Your task to perform on an android device: Open Chrome and go to settings Image 0: 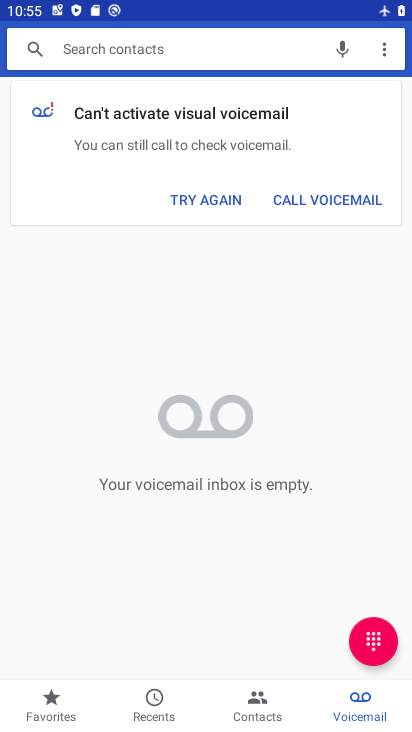
Step 0: press home button
Your task to perform on an android device: Open Chrome and go to settings Image 1: 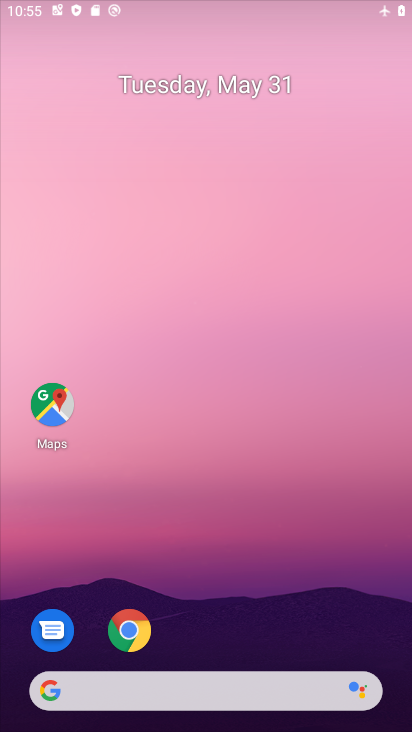
Step 1: drag from (201, 630) to (215, 160)
Your task to perform on an android device: Open Chrome and go to settings Image 2: 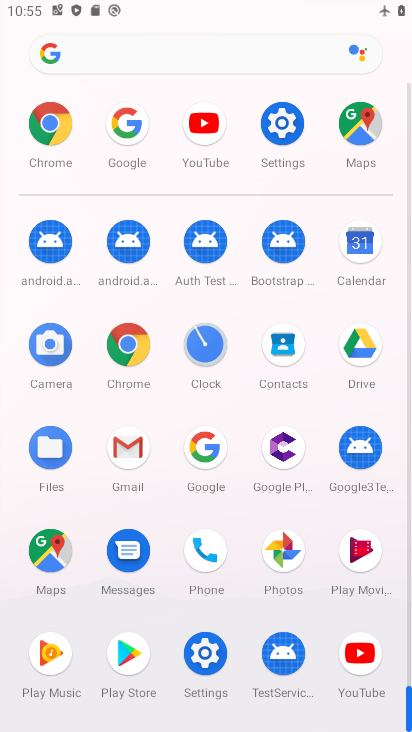
Step 2: click (133, 367)
Your task to perform on an android device: Open Chrome and go to settings Image 3: 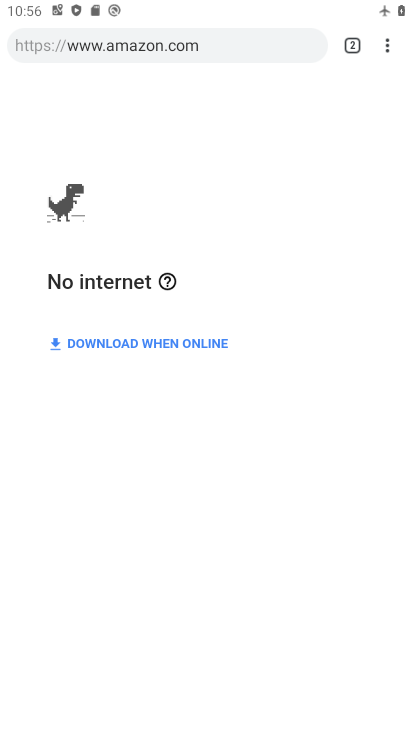
Step 3: click (390, 43)
Your task to perform on an android device: Open Chrome and go to settings Image 4: 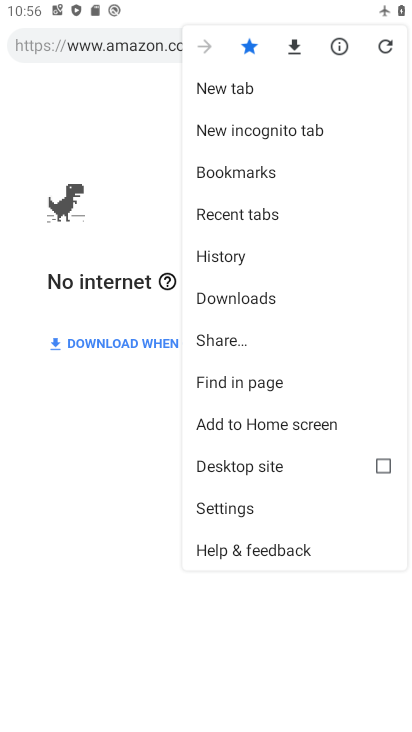
Step 4: click (234, 507)
Your task to perform on an android device: Open Chrome and go to settings Image 5: 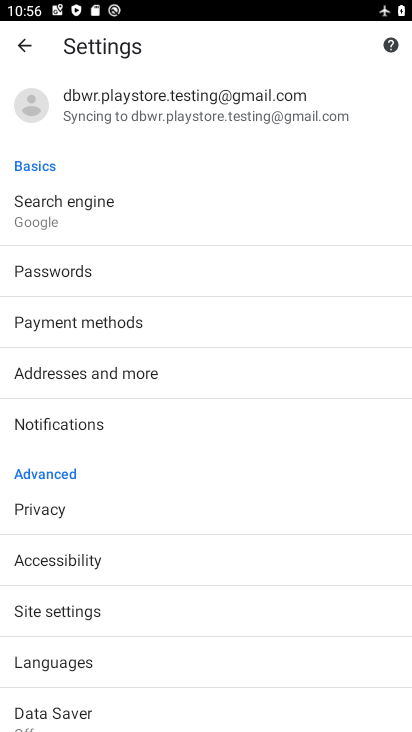
Step 5: task complete